Your task to perform on an android device: open wifi settings Image 0: 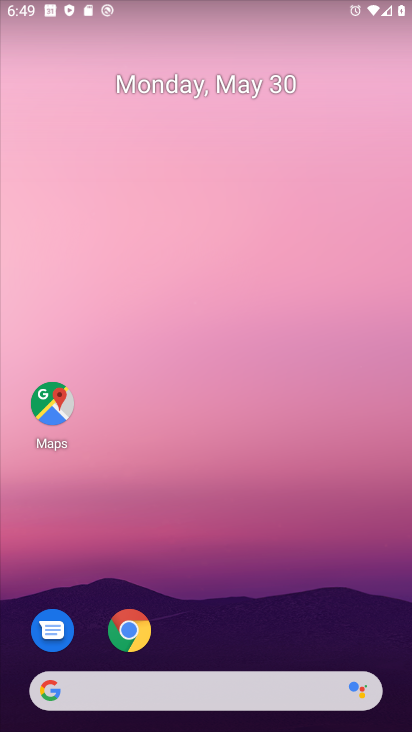
Step 0: drag from (372, 624) to (277, 1)
Your task to perform on an android device: open wifi settings Image 1: 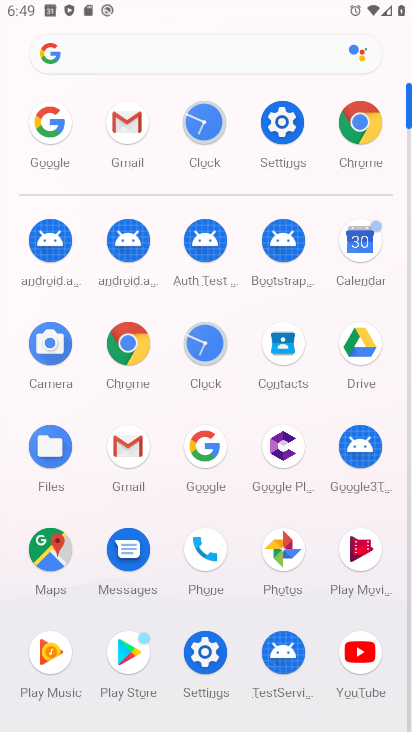
Step 1: click (287, 116)
Your task to perform on an android device: open wifi settings Image 2: 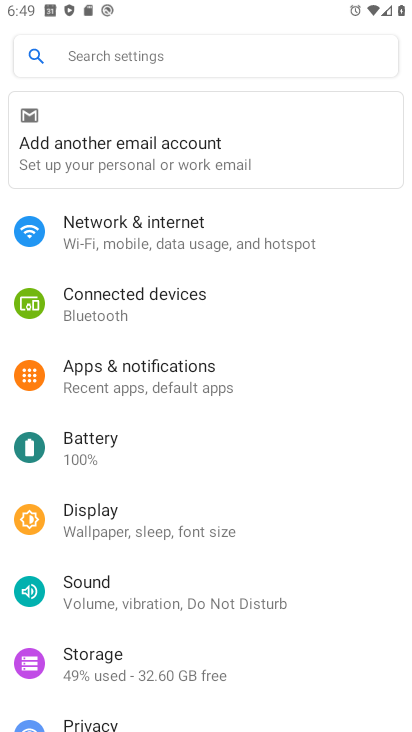
Step 2: click (152, 238)
Your task to perform on an android device: open wifi settings Image 3: 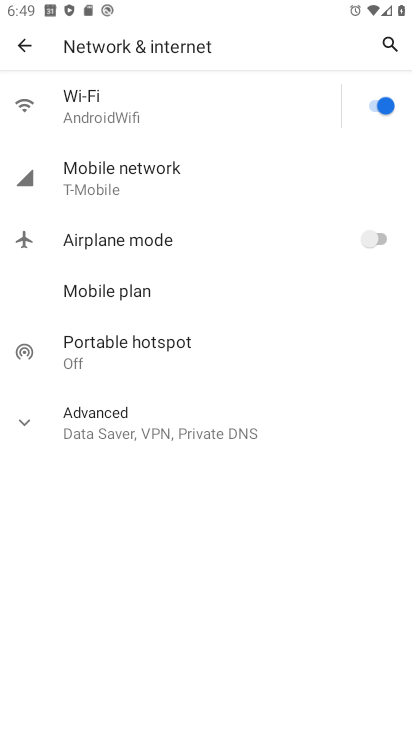
Step 3: click (145, 114)
Your task to perform on an android device: open wifi settings Image 4: 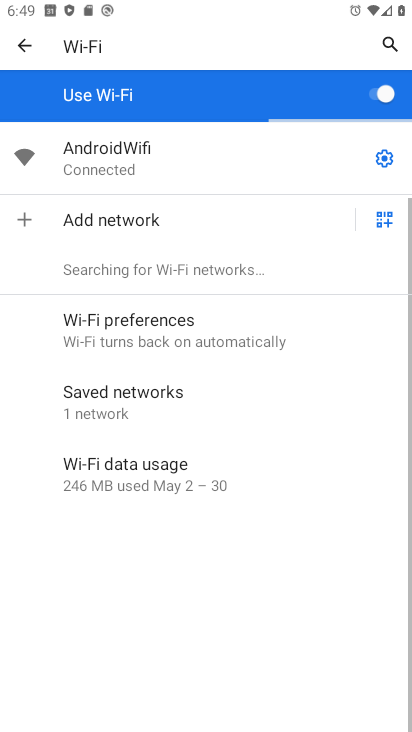
Step 4: task complete